Your task to perform on an android device: set an alarm Image 0: 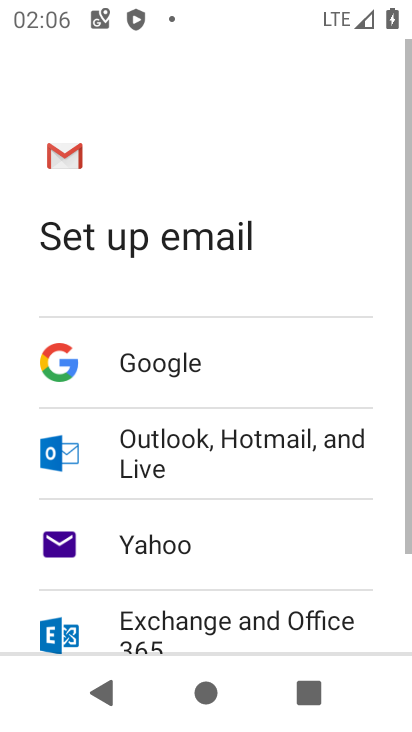
Step 0: press home button
Your task to perform on an android device: set an alarm Image 1: 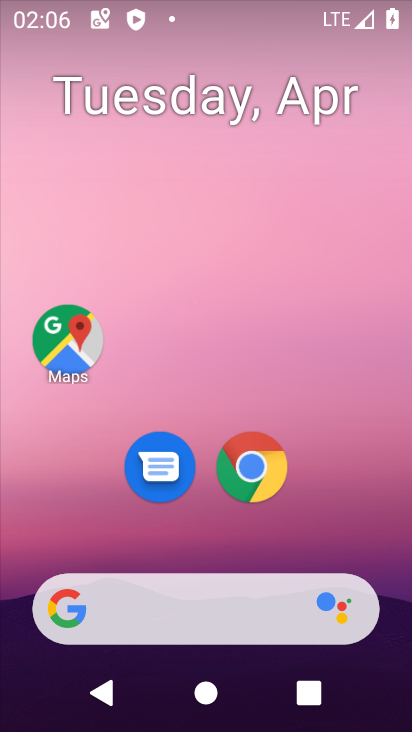
Step 1: drag from (386, 553) to (381, 112)
Your task to perform on an android device: set an alarm Image 2: 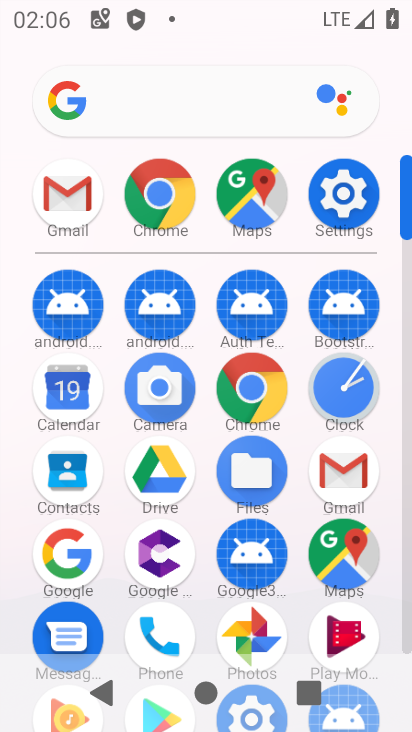
Step 2: click (366, 381)
Your task to perform on an android device: set an alarm Image 3: 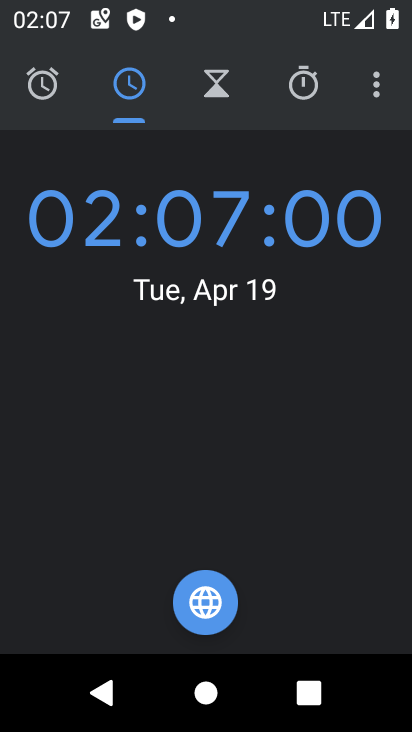
Step 3: click (41, 80)
Your task to perform on an android device: set an alarm Image 4: 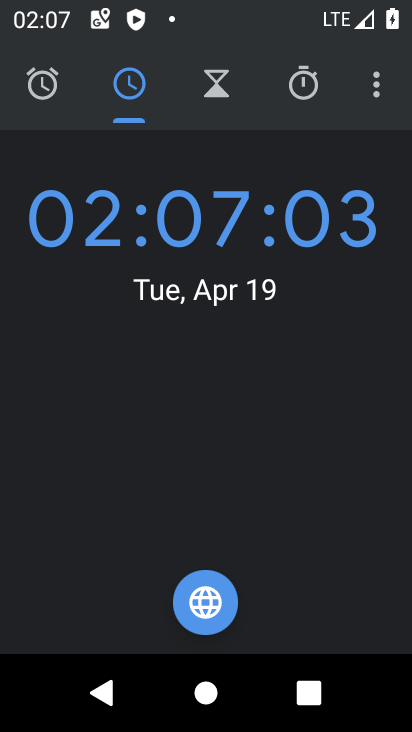
Step 4: click (41, 80)
Your task to perform on an android device: set an alarm Image 5: 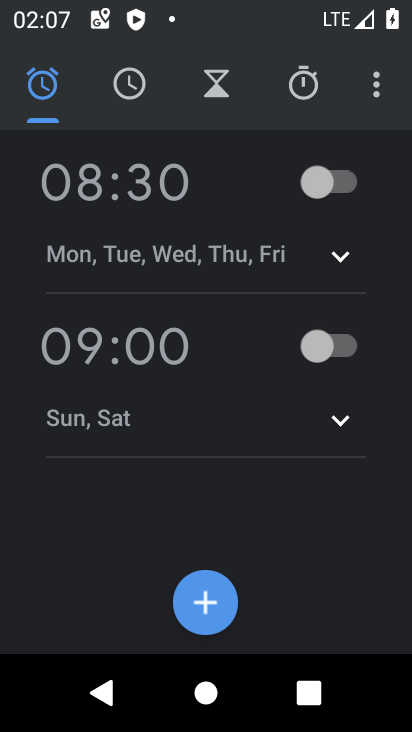
Step 5: click (212, 602)
Your task to perform on an android device: set an alarm Image 6: 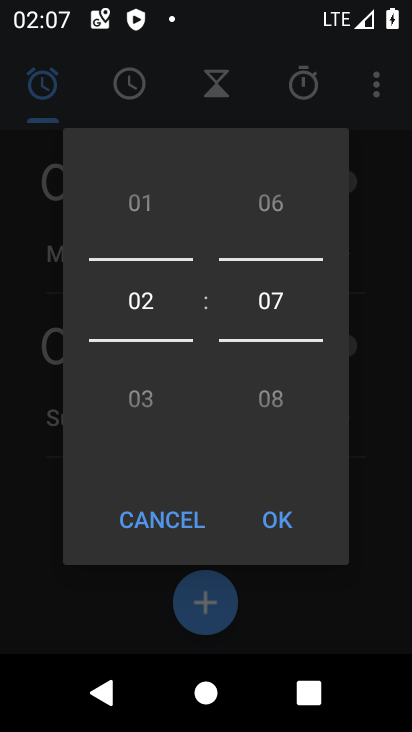
Step 6: click (234, 646)
Your task to perform on an android device: set an alarm Image 7: 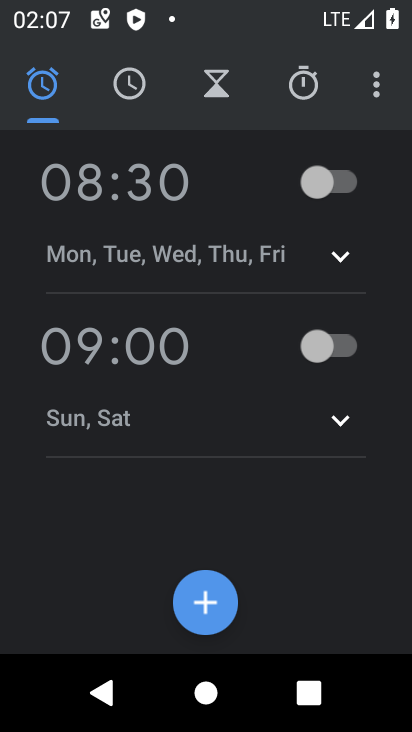
Step 7: click (206, 627)
Your task to perform on an android device: set an alarm Image 8: 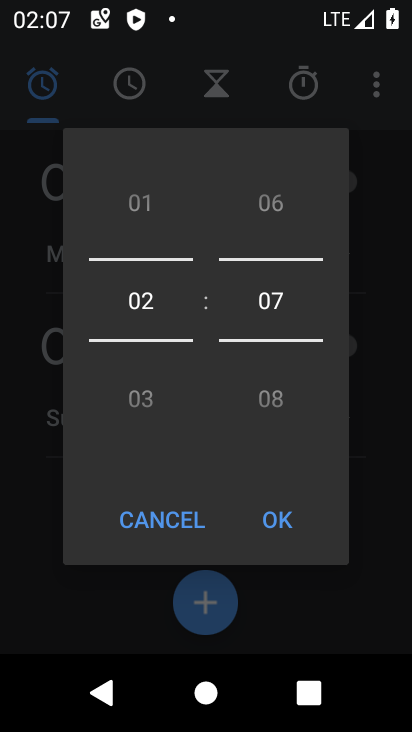
Step 8: click (267, 526)
Your task to perform on an android device: set an alarm Image 9: 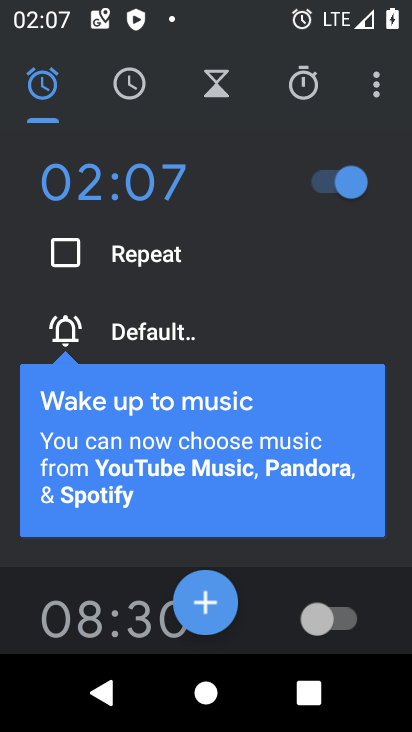
Step 9: task complete